Your task to perform on an android device: Go to CNN.com Image 0: 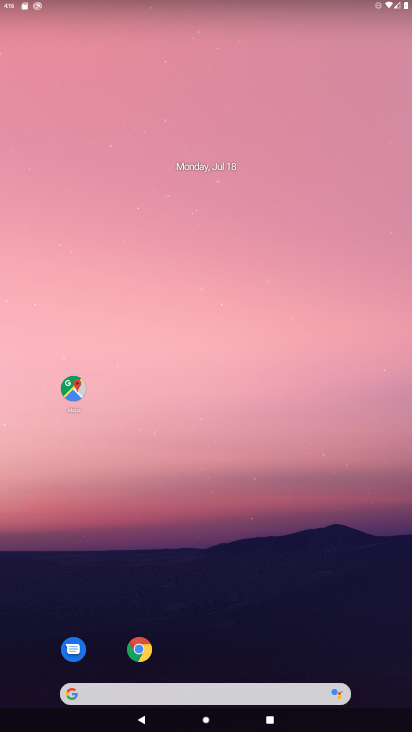
Step 0: click (149, 659)
Your task to perform on an android device: Go to CNN.com Image 1: 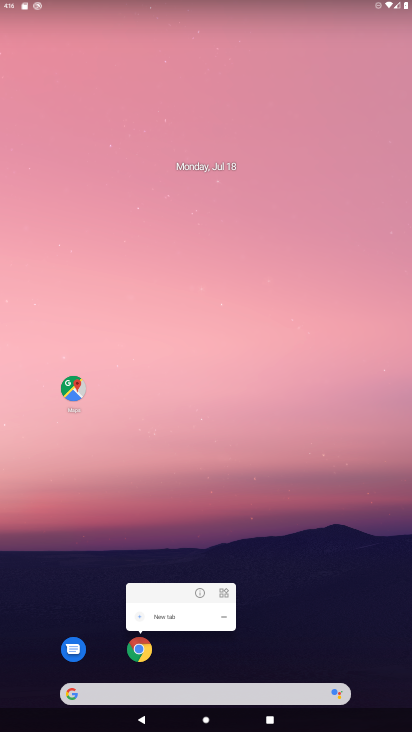
Step 1: click (136, 646)
Your task to perform on an android device: Go to CNN.com Image 2: 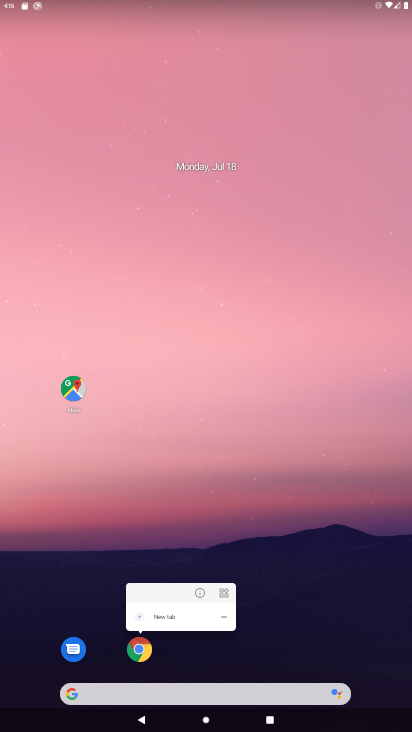
Step 2: click (141, 649)
Your task to perform on an android device: Go to CNN.com Image 3: 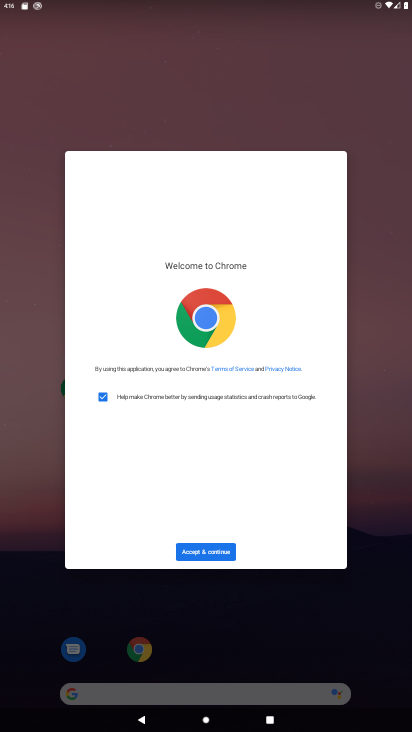
Step 3: click (197, 556)
Your task to perform on an android device: Go to CNN.com Image 4: 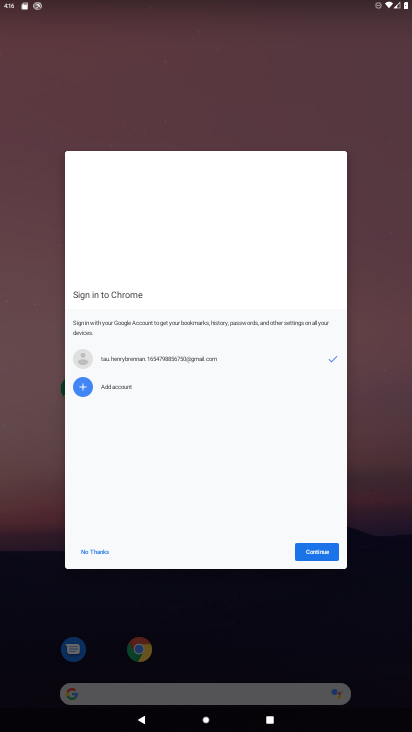
Step 4: click (334, 549)
Your task to perform on an android device: Go to CNN.com Image 5: 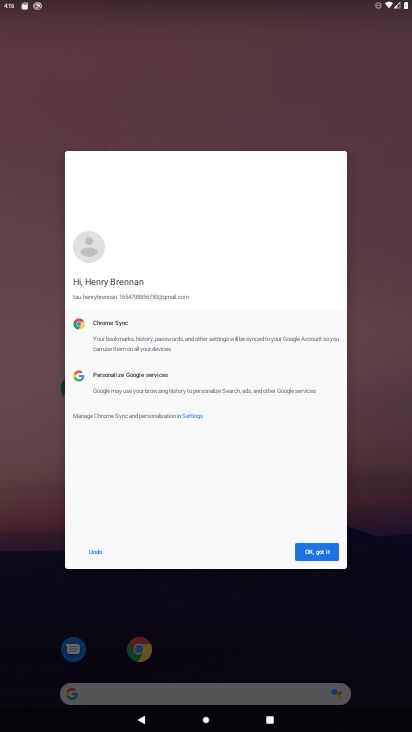
Step 5: click (334, 549)
Your task to perform on an android device: Go to CNN.com Image 6: 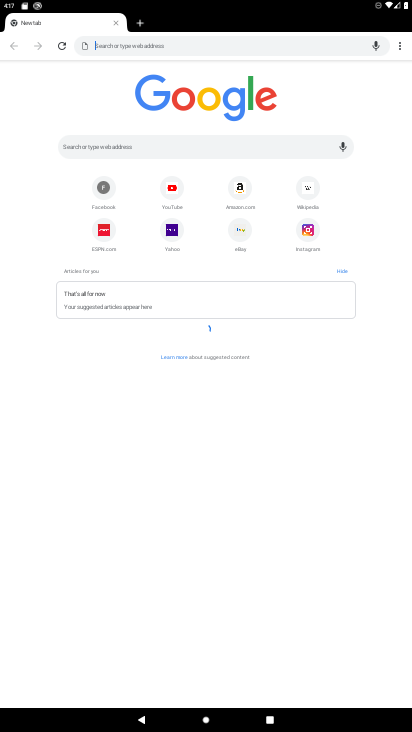
Step 6: click (138, 144)
Your task to perform on an android device: Go to CNN.com Image 7: 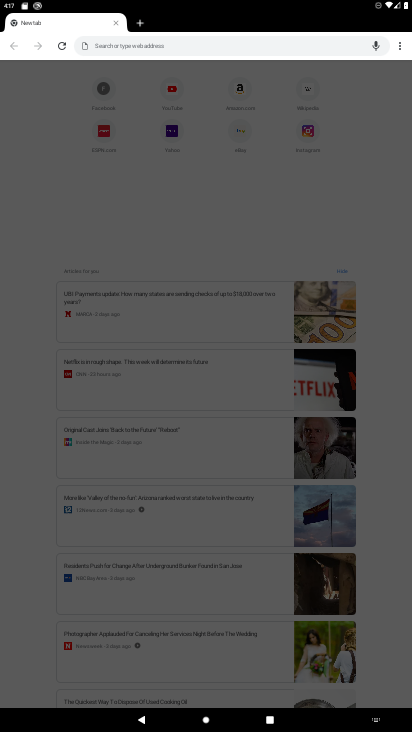
Step 7: type "CNN.com"
Your task to perform on an android device: Go to CNN.com Image 8: 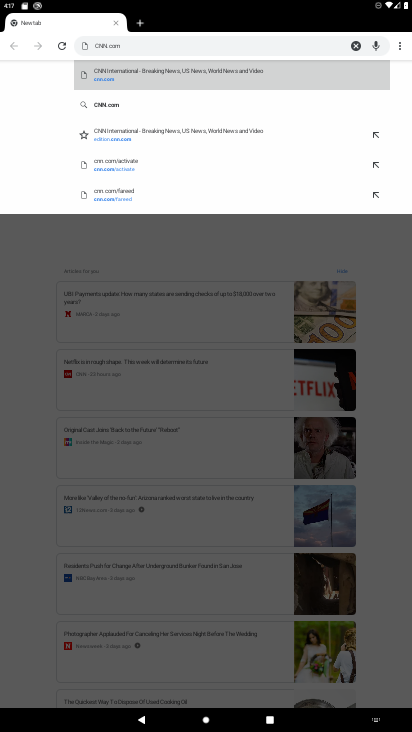
Step 8: click (135, 102)
Your task to perform on an android device: Go to CNN.com Image 9: 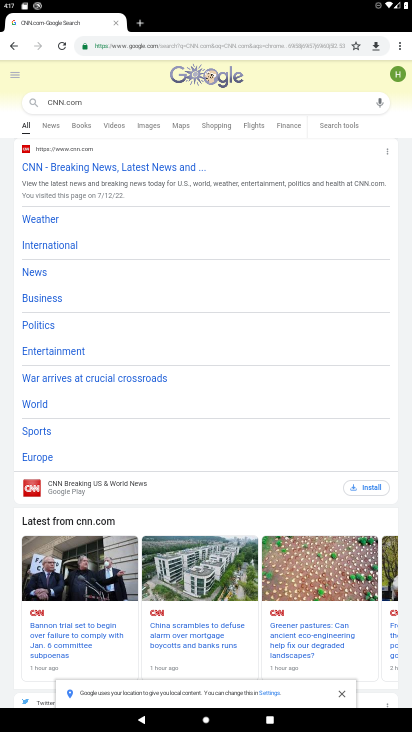
Step 9: click (132, 164)
Your task to perform on an android device: Go to CNN.com Image 10: 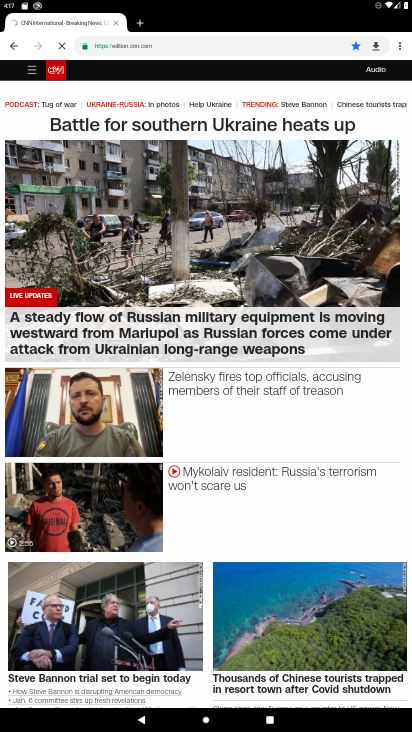
Step 10: task complete